Your task to perform on an android device: turn off translation in the chrome app Image 0: 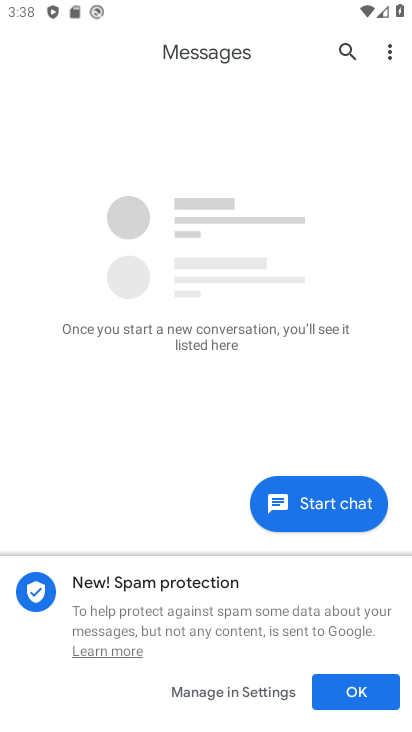
Step 0: press home button
Your task to perform on an android device: turn off translation in the chrome app Image 1: 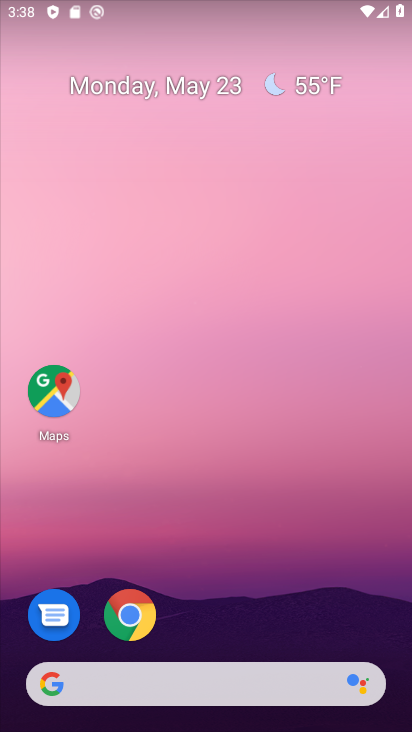
Step 1: drag from (354, 625) to (350, 81)
Your task to perform on an android device: turn off translation in the chrome app Image 2: 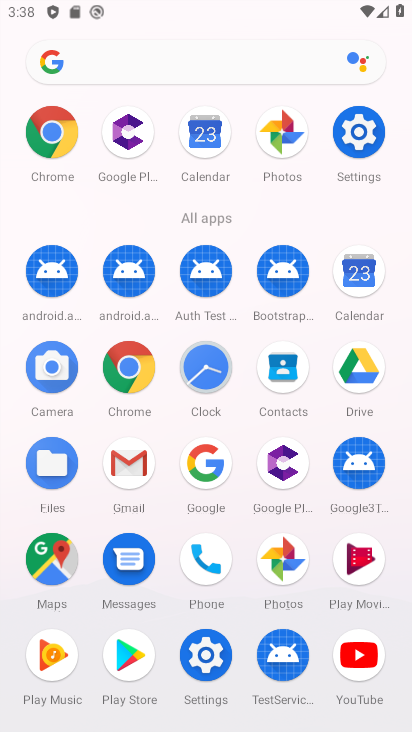
Step 2: click (363, 144)
Your task to perform on an android device: turn off translation in the chrome app Image 3: 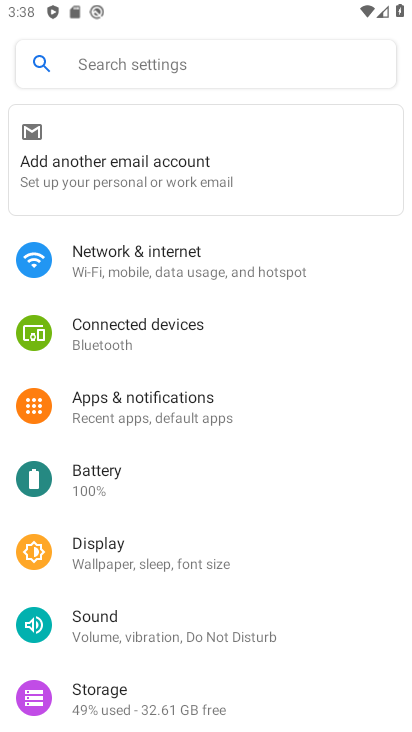
Step 3: press back button
Your task to perform on an android device: turn off translation in the chrome app Image 4: 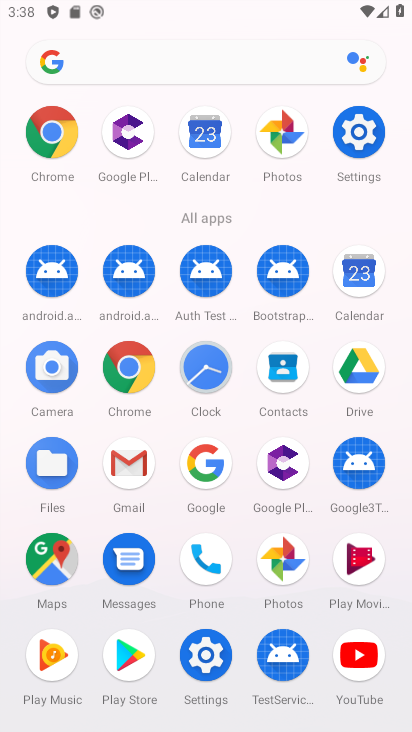
Step 4: click (136, 377)
Your task to perform on an android device: turn off translation in the chrome app Image 5: 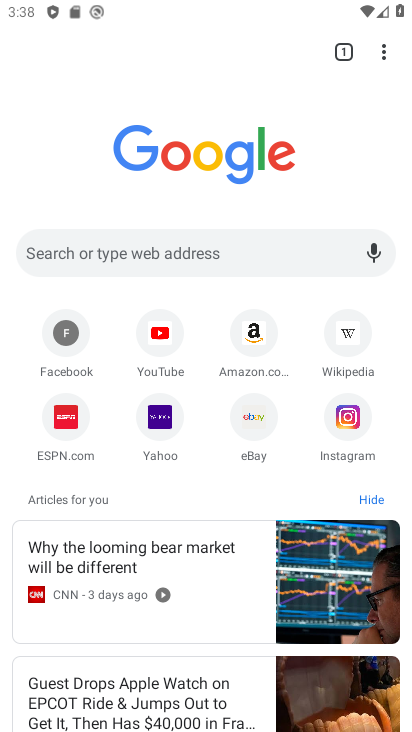
Step 5: click (383, 56)
Your task to perform on an android device: turn off translation in the chrome app Image 6: 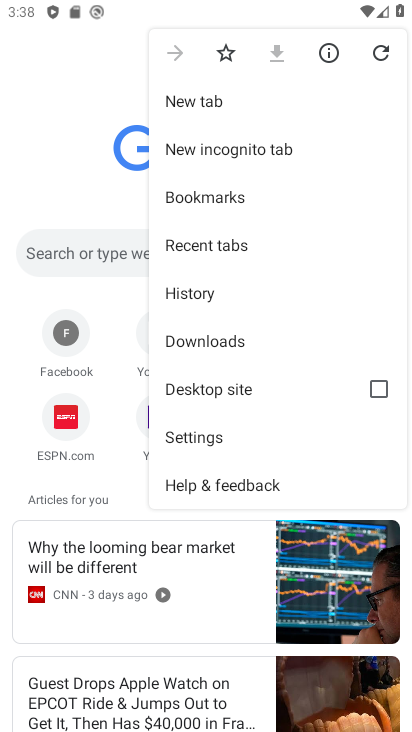
Step 6: click (195, 448)
Your task to perform on an android device: turn off translation in the chrome app Image 7: 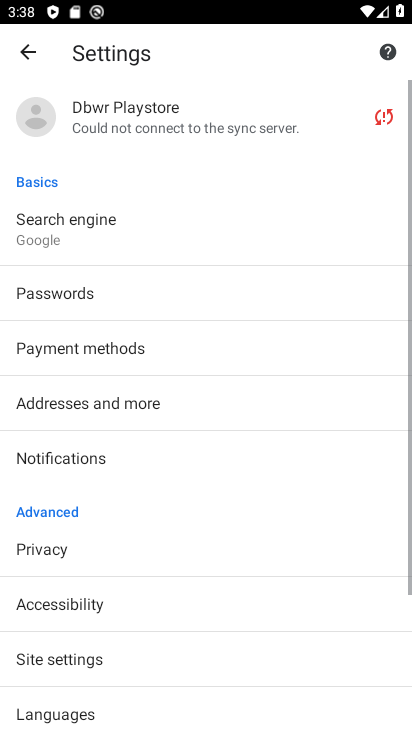
Step 7: drag from (261, 564) to (289, 319)
Your task to perform on an android device: turn off translation in the chrome app Image 8: 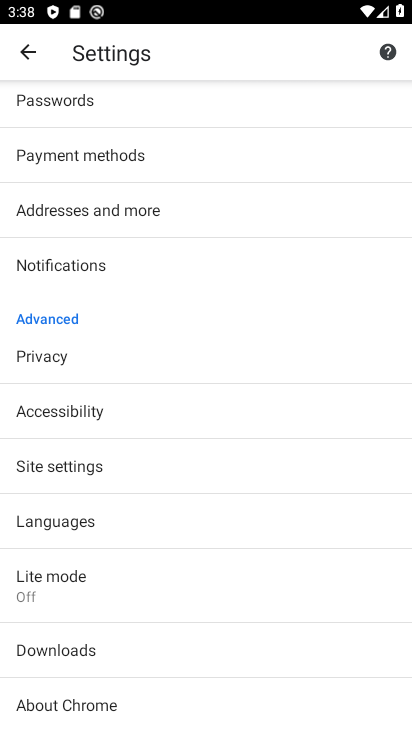
Step 8: drag from (300, 632) to (314, 392)
Your task to perform on an android device: turn off translation in the chrome app Image 9: 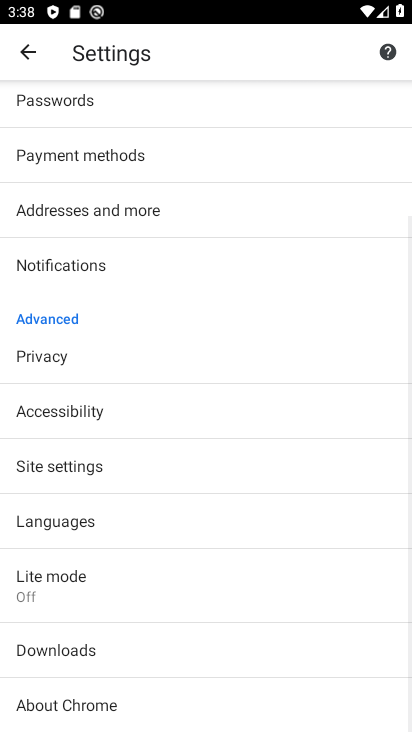
Step 9: drag from (296, 287) to (297, 496)
Your task to perform on an android device: turn off translation in the chrome app Image 10: 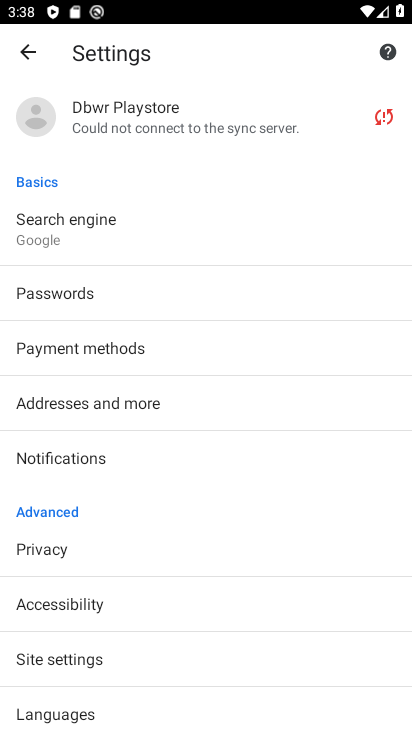
Step 10: drag from (293, 226) to (290, 527)
Your task to perform on an android device: turn off translation in the chrome app Image 11: 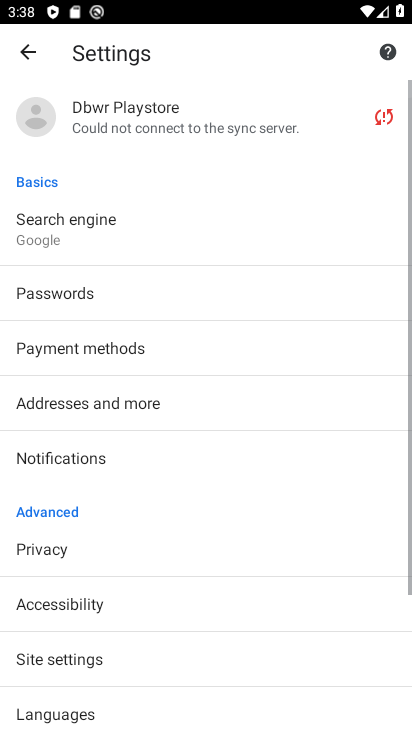
Step 11: drag from (297, 514) to (287, 268)
Your task to perform on an android device: turn off translation in the chrome app Image 12: 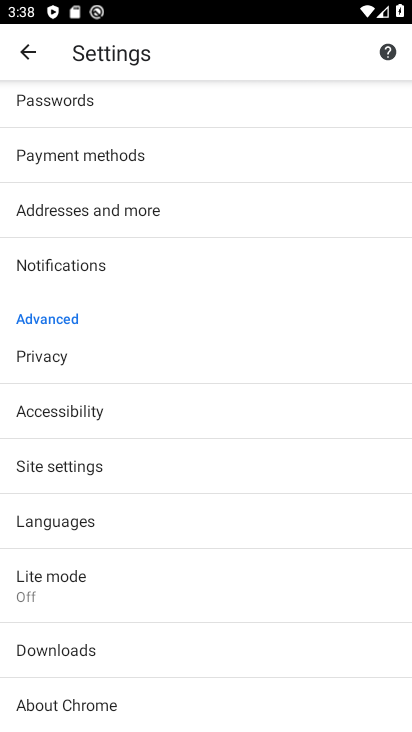
Step 12: drag from (282, 560) to (275, 300)
Your task to perform on an android device: turn off translation in the chrome app Image 13: 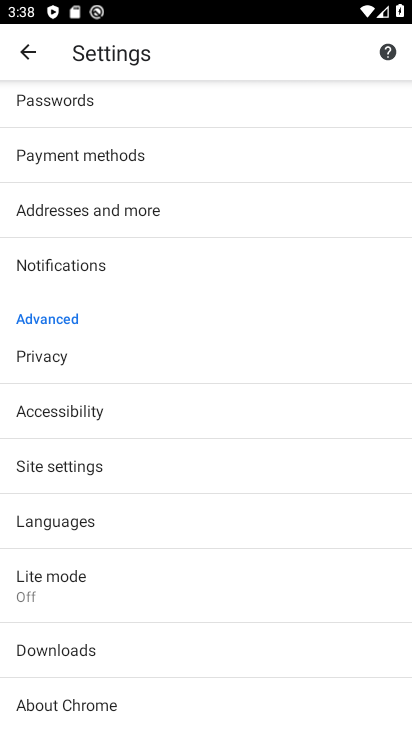
Step 13: click (186, 522)
Your task to perform on an android device: turn off translation in the chrome app Image 14: 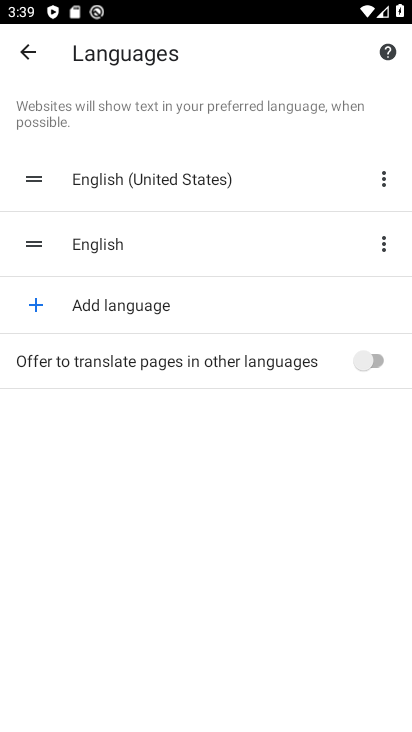
Step 14: task complete